Your task to perform on an android device: Turn on the flashlight Image 0: 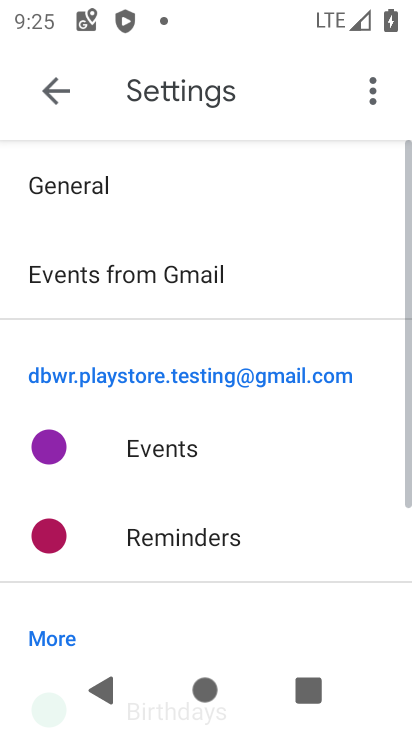
Step 0: press home button
Your task to perform on an android device: Turn on the flashlight Image 1: 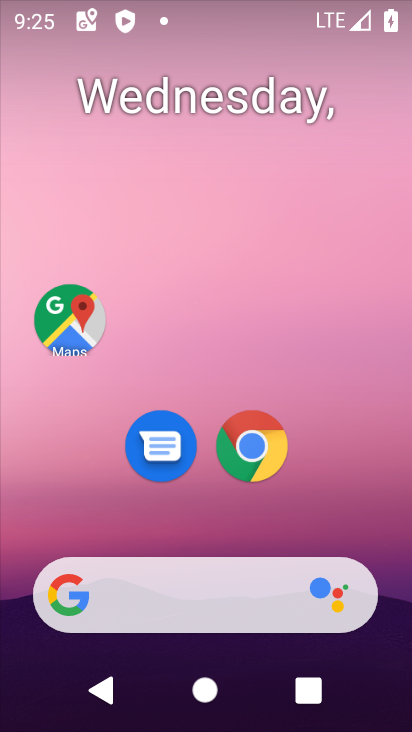
Step 1: task complete